Your task to perform on an android device: turn off location Image 0: 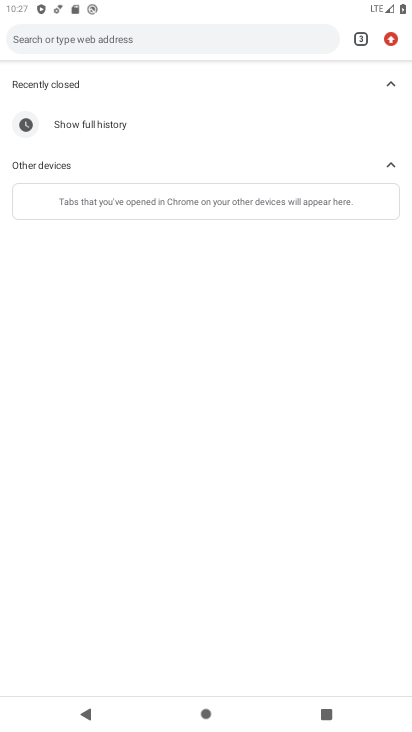
Step 0: press home button
Your task to perform on an android device: turn off location Image 1: 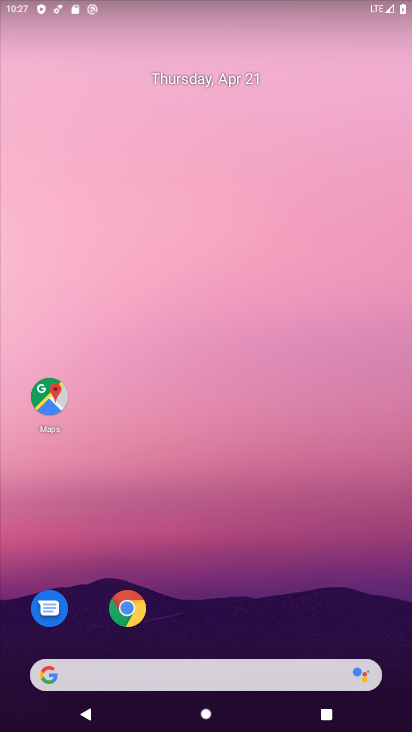
Step 1: drag from (207, 465) to (176, 74)
Your task to perform on an android device: turn off location Image 2: 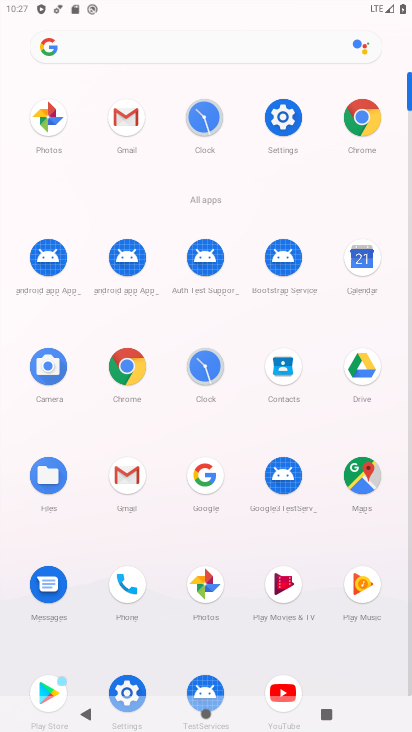
Step 2: click (277, 112)
Your task to perform on an android device: turn off location Image 3: 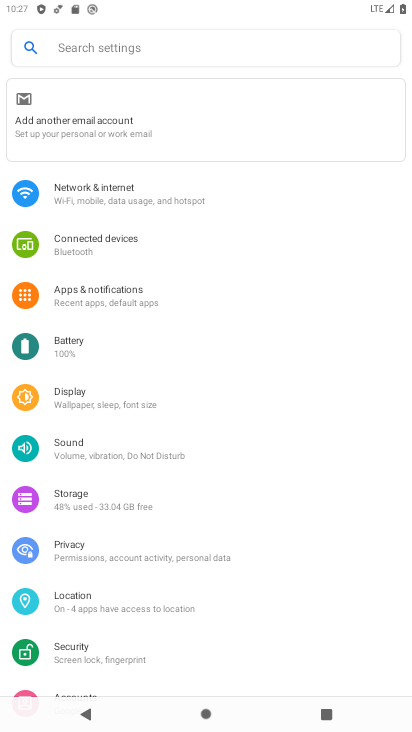
Step 3: click (69, 601)
Your task to perform on an android device: turn off location Image 4: 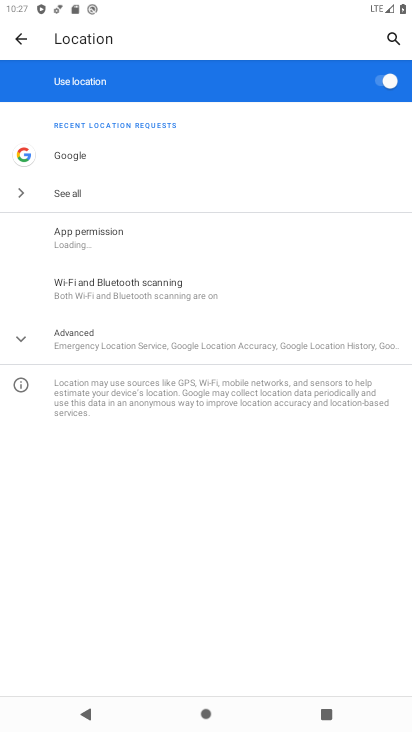
Step 4: click (384, 80)
Your task to perform on an android device: turn off location Image 5: 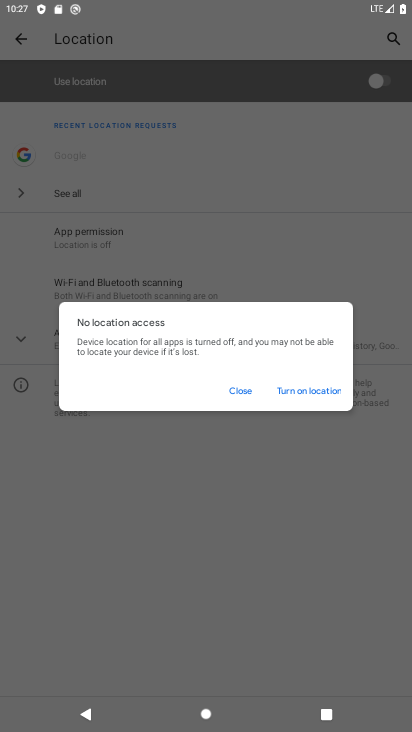
Step 5: task complete